Your task to perform on an android device: Play the last video I watched on Youtube Image 0: 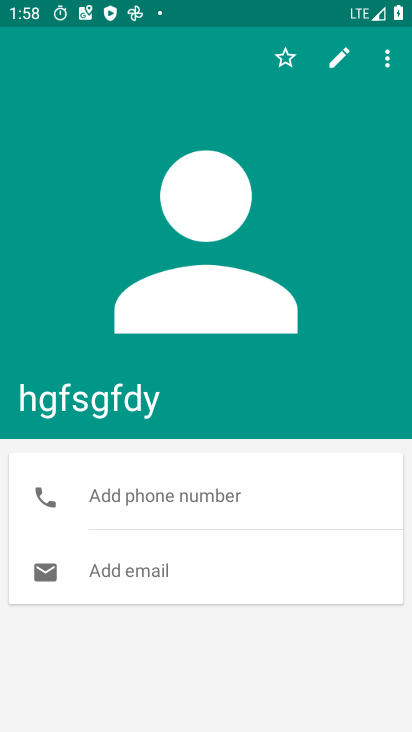
Step 0: press home button
Your task to perform on an android device: Play the last video I watched on Youtube Image 1: 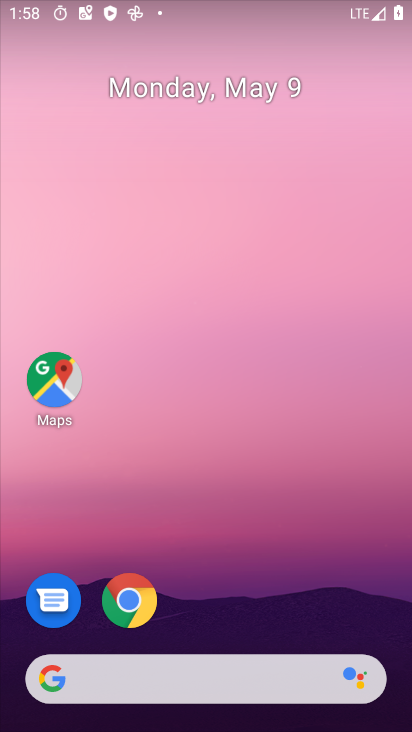
Step 1: drag from (310, 613) to (302, 293)
Your task to perform on an android device: Play the last video I watched on Youtube Image 2: 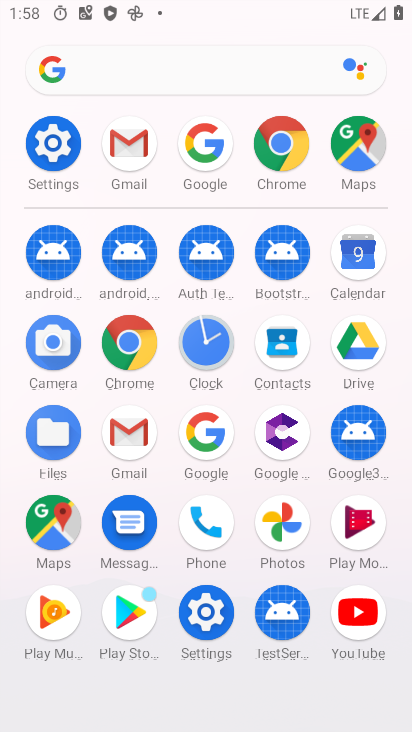
Step 2: click (351, 611)
Your task to perform on an android device: Play the last video I watched on Youtube Image 3: 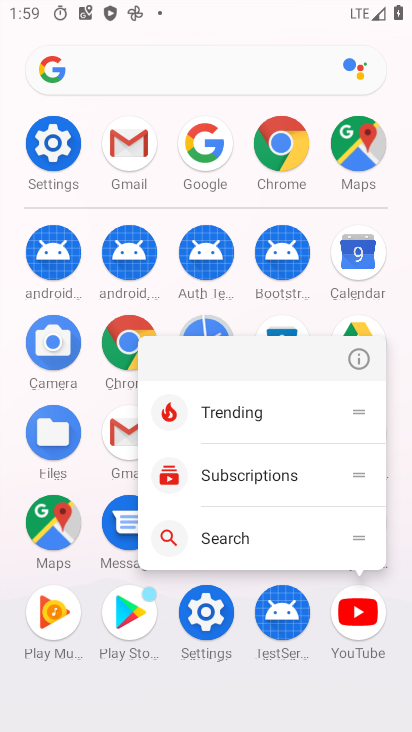
Step 3: click (358, 361)
Your task to perform on an android device: Play the last video I watched on Youtube Image 4: 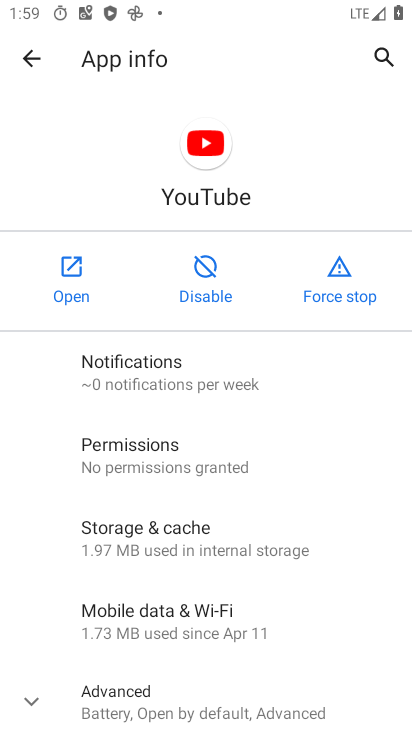
Step 4: click (72, 284)
Your task to perform on an android device: Play the last video I watched on Youtube Image 5: 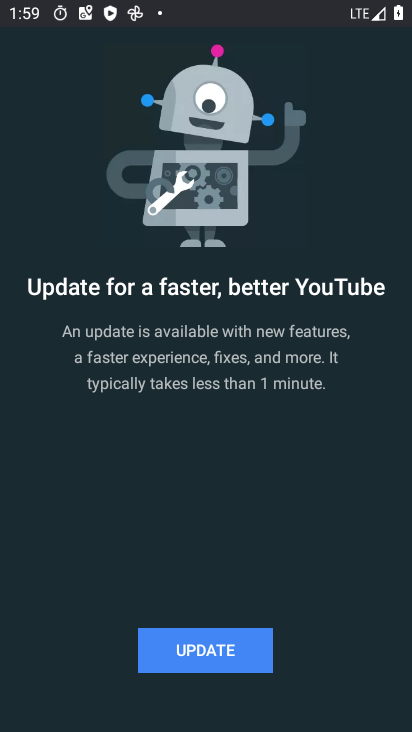
Step 5: click (204, 647)
Your task to perform on an android device: Play the last video I watched on Youtube Image 6: 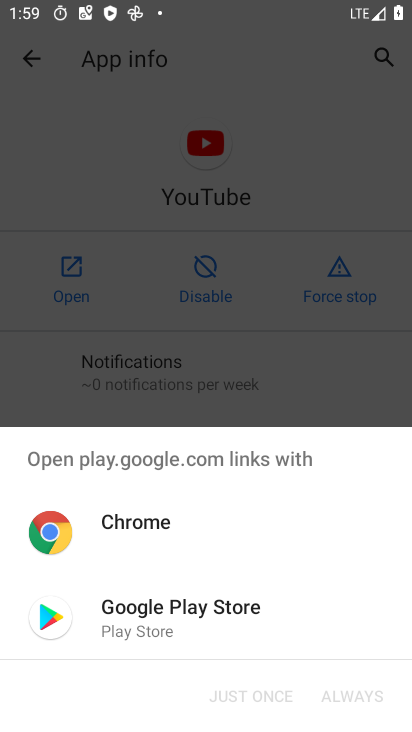
Step 6: click (204, 647)
Your task to perform on an android device: Play the last video I watched on Youtube Image 7: 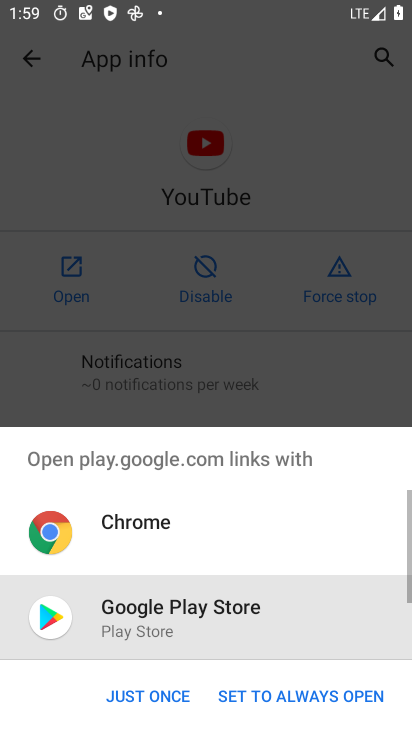
Step 7: click (204, 647)
Your task to perform on an android device: Play the last video I watched on Youtube Image 8: 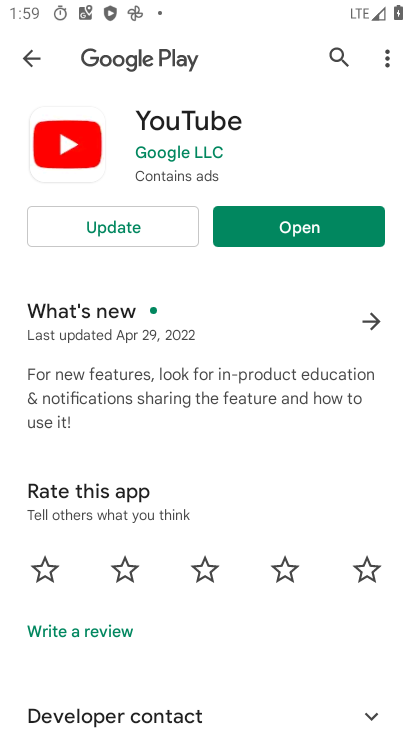
Step 8: click (184, 229)
Your task to perform on an android device: Play the last video I watched on Youtube Image 9: 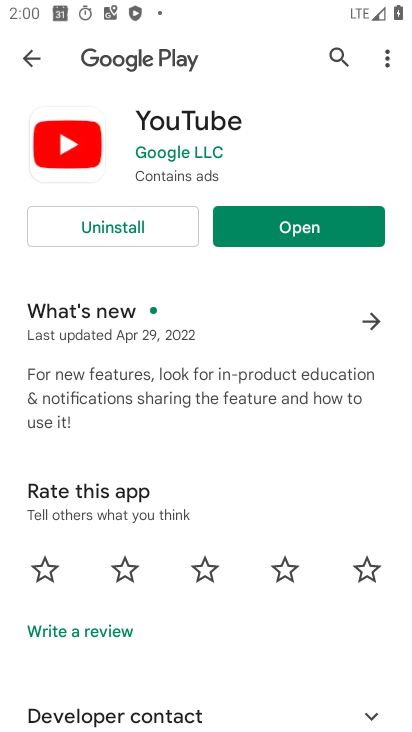
Step 9: click (283, 215)
Your task to perform on an android device: Play the last video I watched on Youtube Image 10: 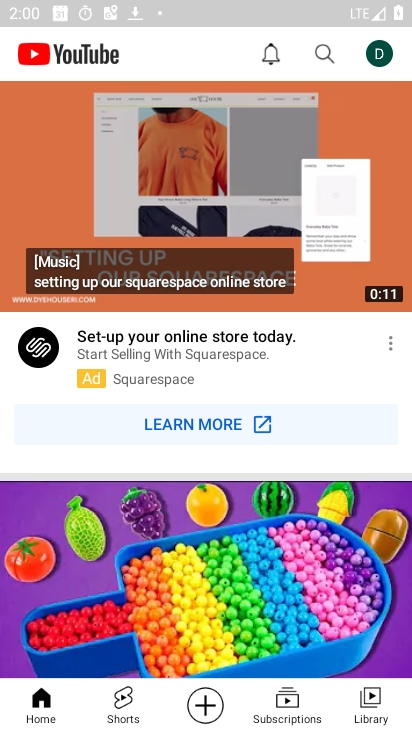
Step 10: click (371, 728)
Your task to perform on an android device: Play the last video I watched on Youtube Image 11: 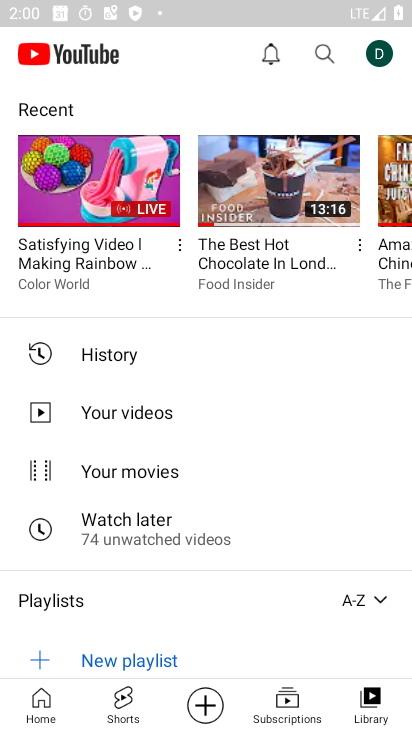
Step 11: click (108, 212)
Your task to perform on an android device: Play the last video I watched on Youtube Image 12: 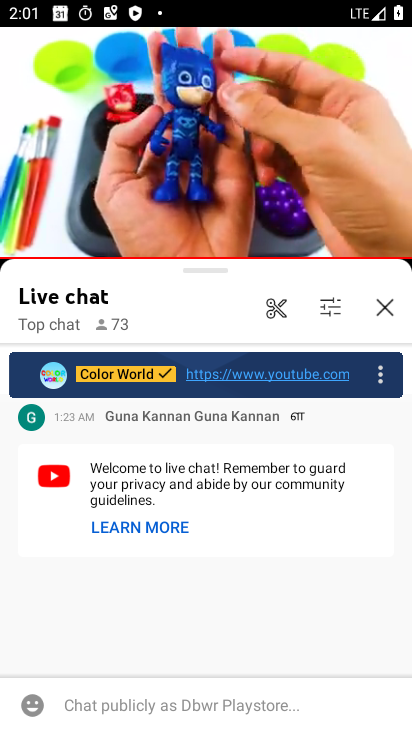
Step 12: task complete